Your task to perform on an android device: uninstall "Chime – Mobile Banking" Image 0: 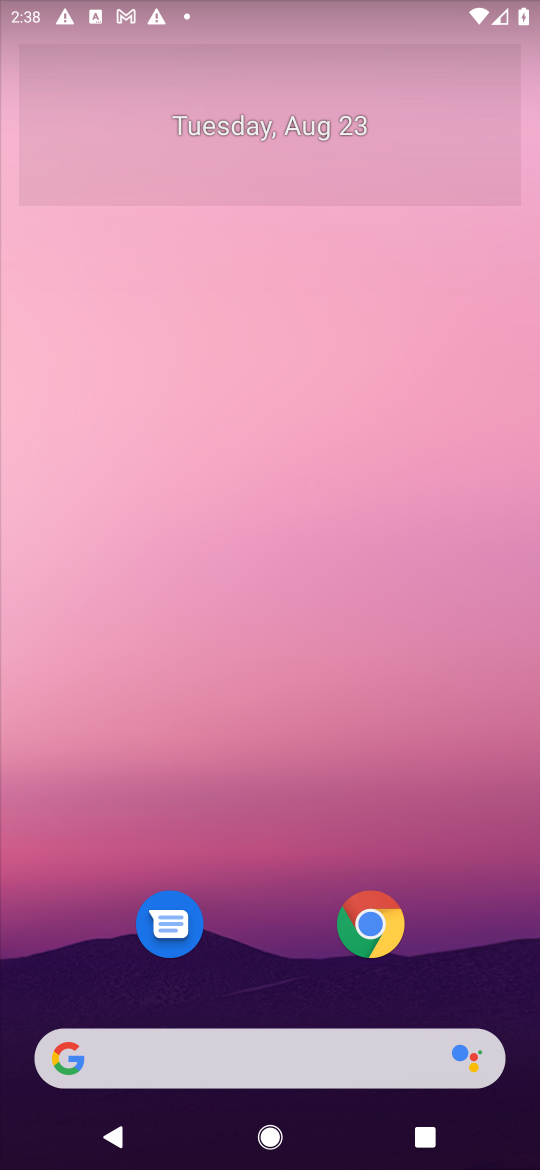
Step 0: press home button
Your task to perform on an android device: uninstall "Chime – Mobile Banking" Image 1: 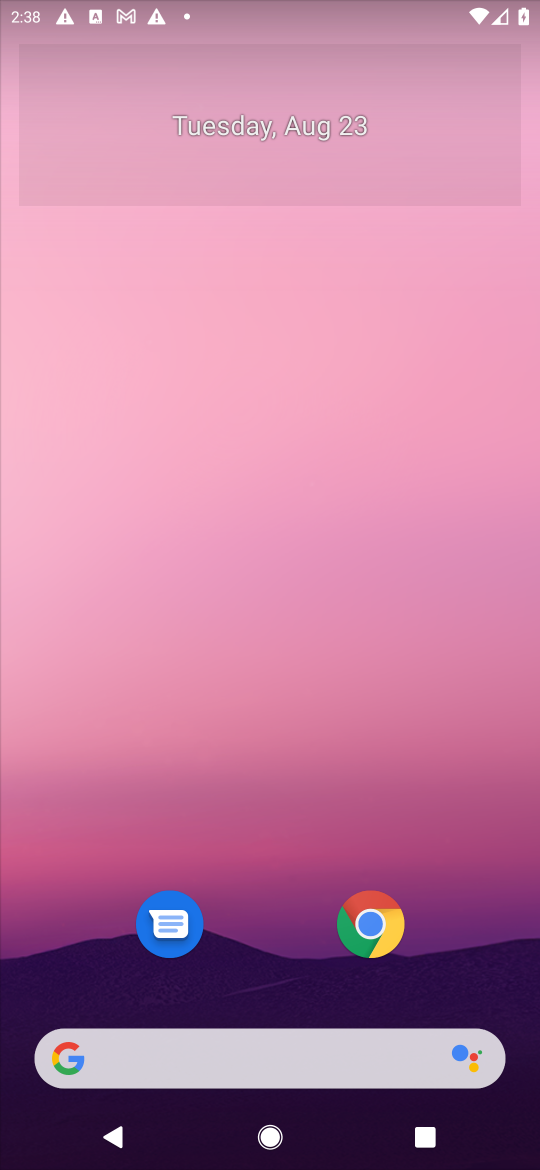
Step 1: drag from (484, 975) to (466, 316)
Your task to perform on an android device: uninstall "Chime – Mobile Banking" Image 2: 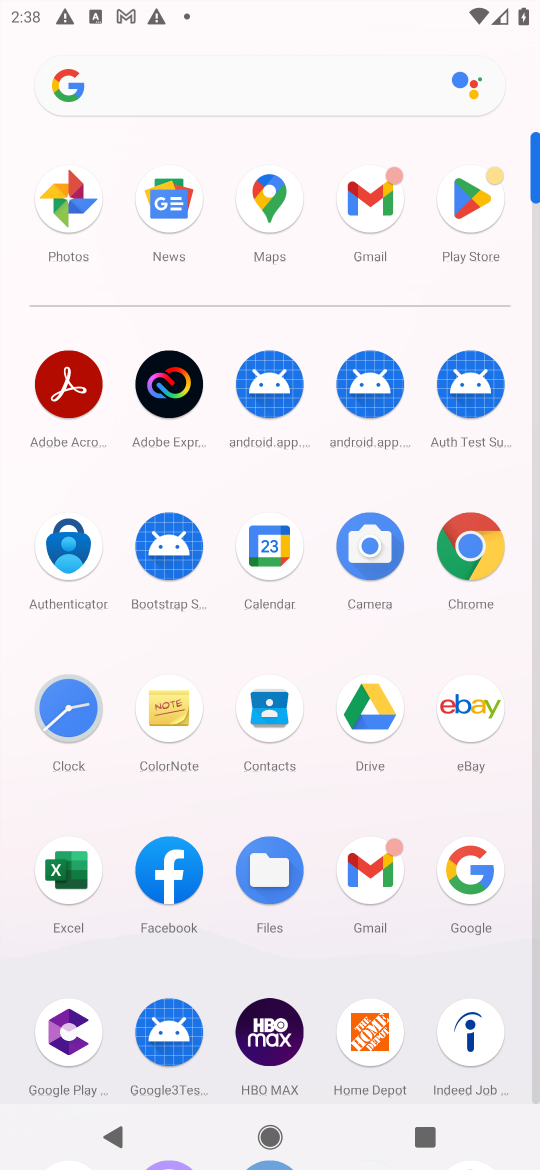
Step 2: click (475, 192)
Your task to perform on an android device: uninstall "Chime – Mobile Banking" Image 3: 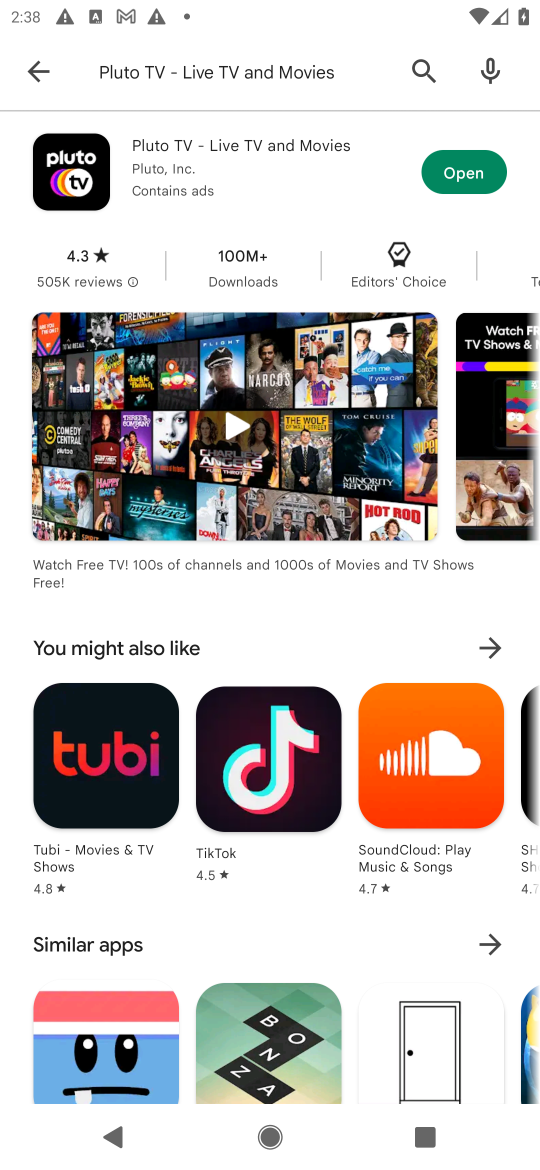
Step 3: press back button
Your task to perform on an android device: uninstall "Chime – Mobile Banking" Image 4: 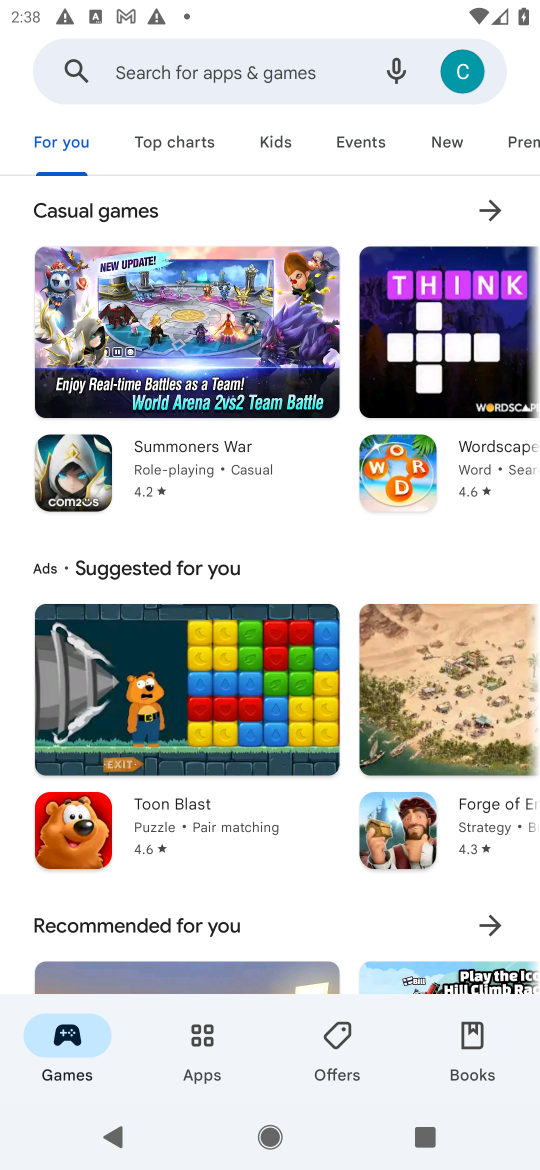
Step 4: click (207, 71)
Your task to perform on an android device: uninstall "Chime – Mobile Banking" Image 5: 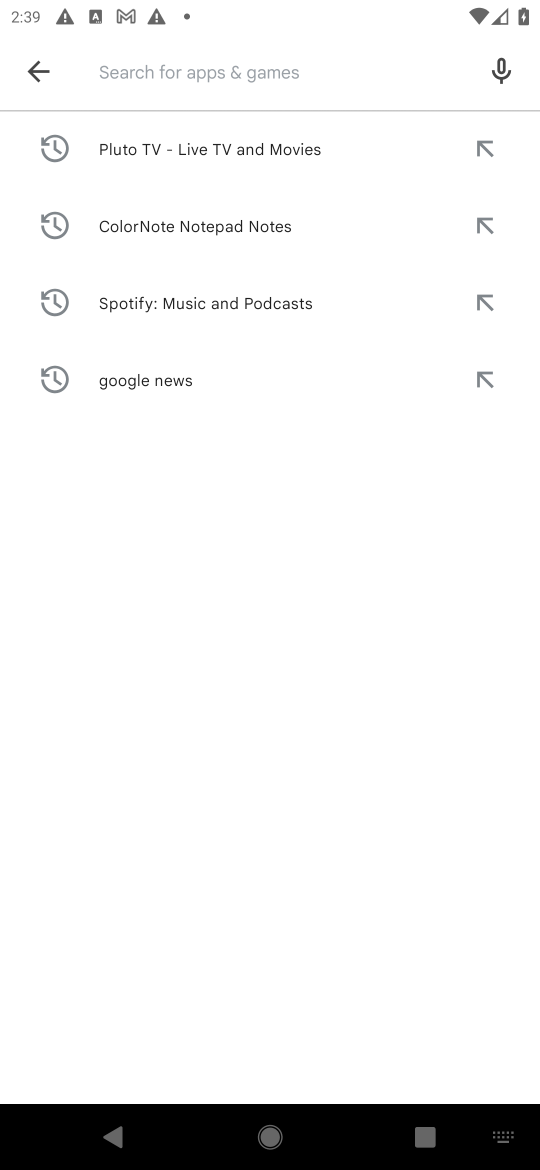
Step 5: press enter
Your task to perform on an android device: uninstall "Chime – Mobile Banking" Image 6: 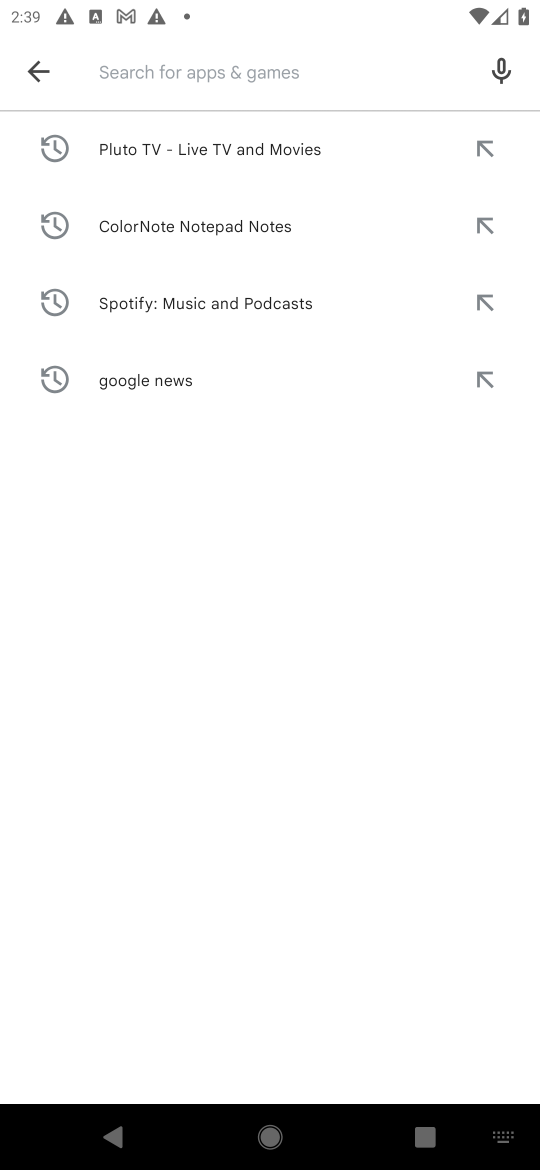
Step 6: type "Chime – Mobile Banking"
Your task to perform on an android device: uninstall "Chime – Mobile Banking" Image 7: 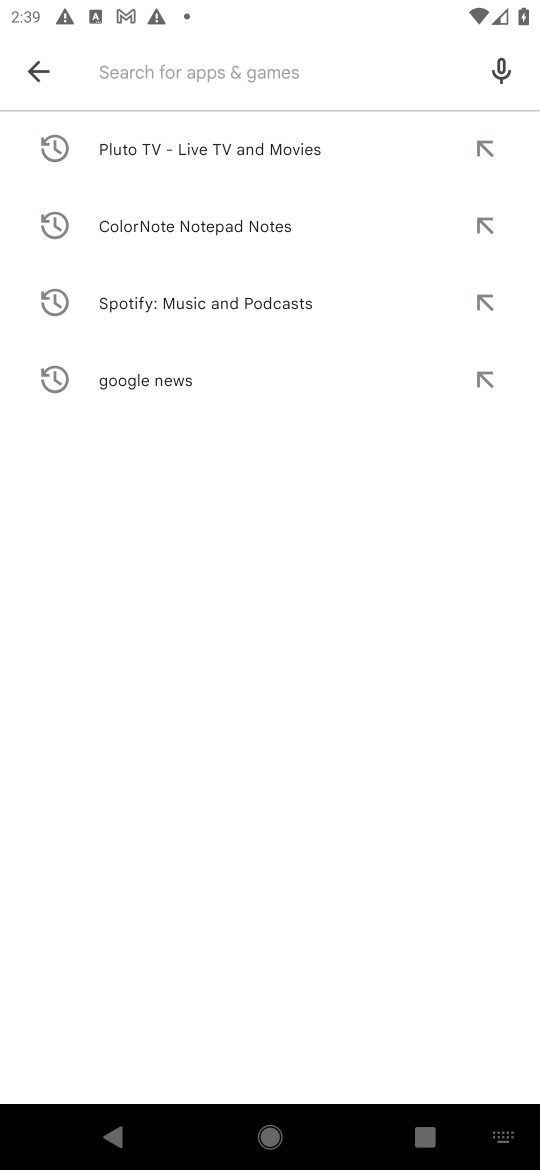
Step 7: task complete